Your task to perform on an android device: show emergency info Image 0: 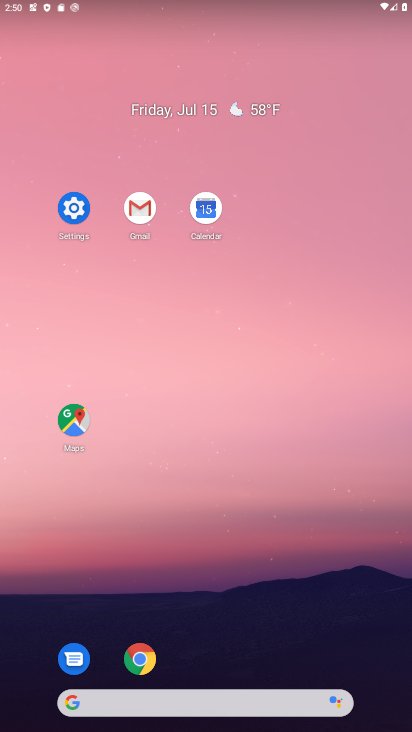
Step 0: click (77, 200)
Your task to perform on an android device: show emergency info Image 1: 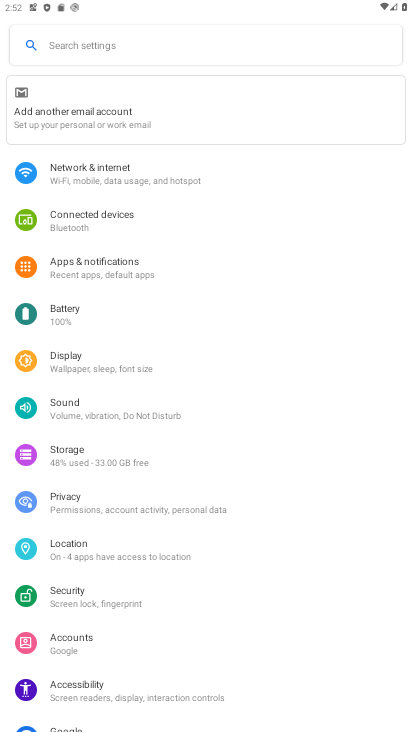
Step 1: drag from (191, 596) to (185, 196)
Your task to perform on an android device: show emergency info Image 2: 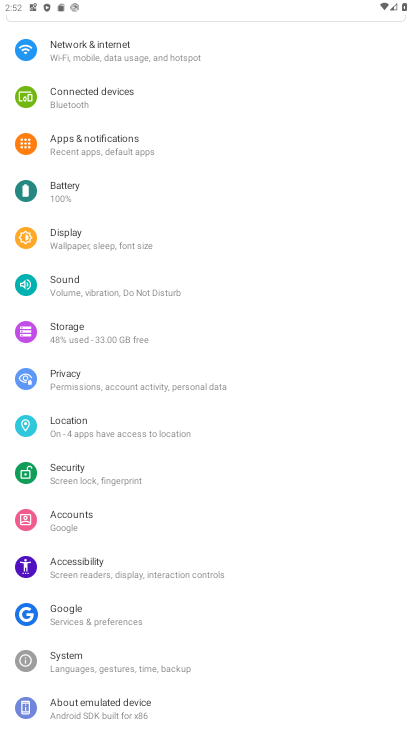
Step 2: click (168, 712)
Your task to perform on an android device: show emergency info Image 3: 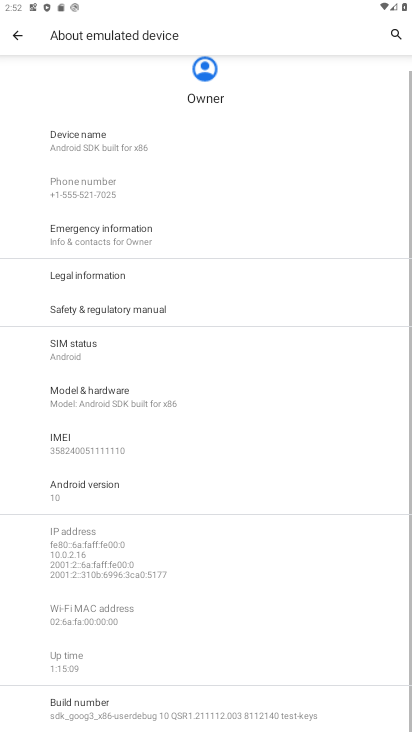
Step 3: click (166, 240)
Your task to perform on an android device: show emergency info Image 4: 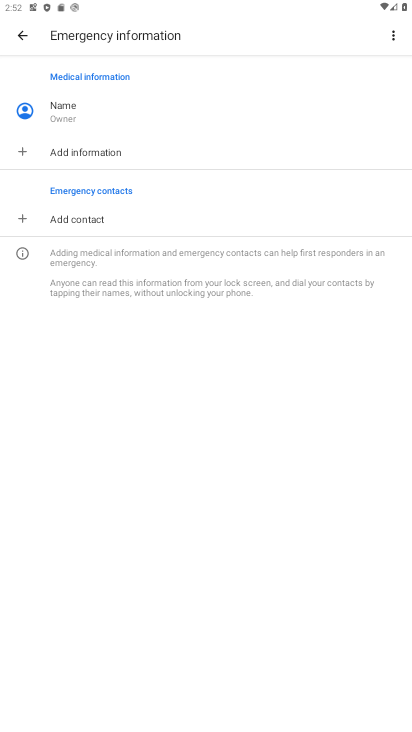
Step 4: task complete